Your task to perform on an android device: turn on showing notifications on the lock screen Image 0: 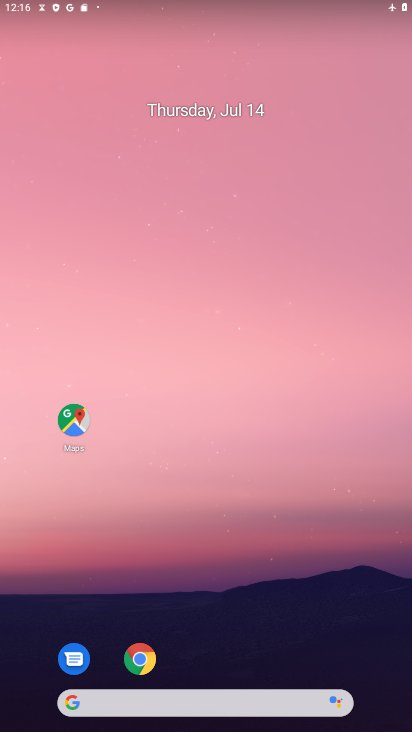
Step 0: drag from (46, 643) to (156, 338)
Your task to perform on an android device: turn on showing notifications on the lock screen Image 1: 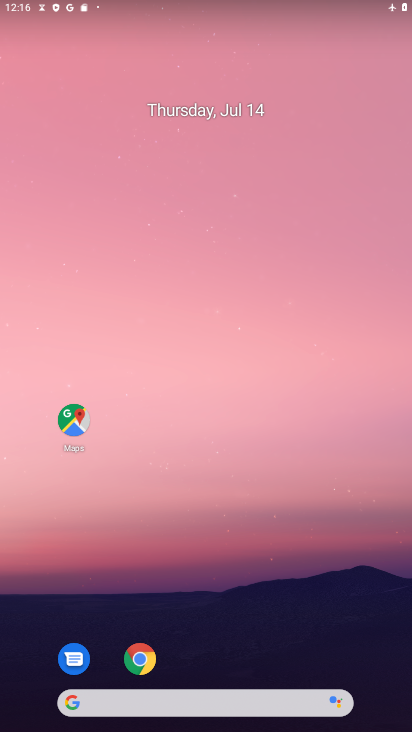
Step 1: drag from (32, 673) to (215, 140)
Your task to perform on an android device: turn on showing notifications on the lock screen Image 2: 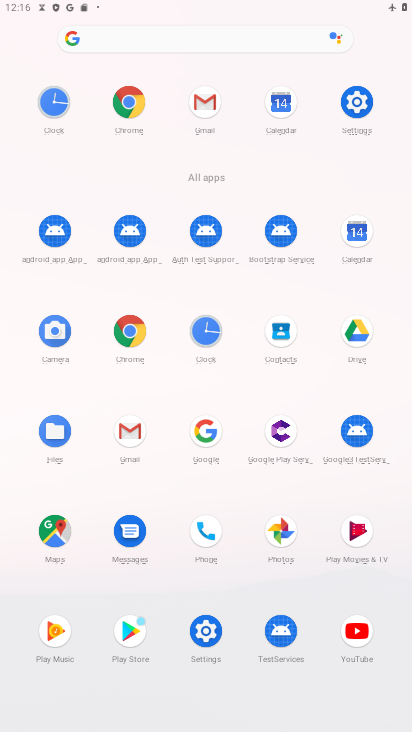
Step 2: click (194, 623)
Your task to perform on an android device: turn on showing notifications on the lock screen Image 3: 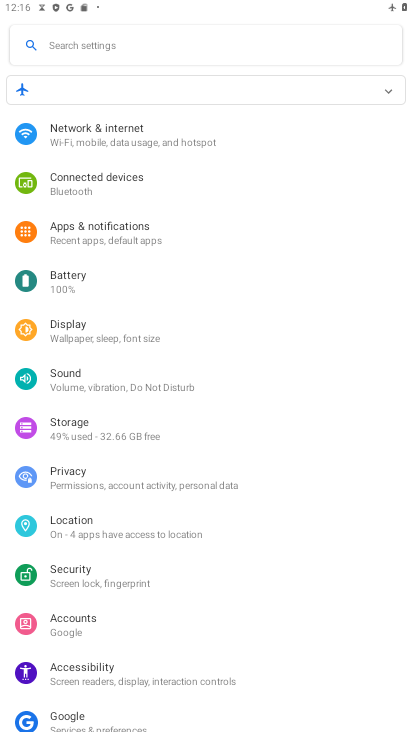
Step 3: click (124, 234)
Your task to perform on an android device: turn on showing notifications on the lock screen Image 4: 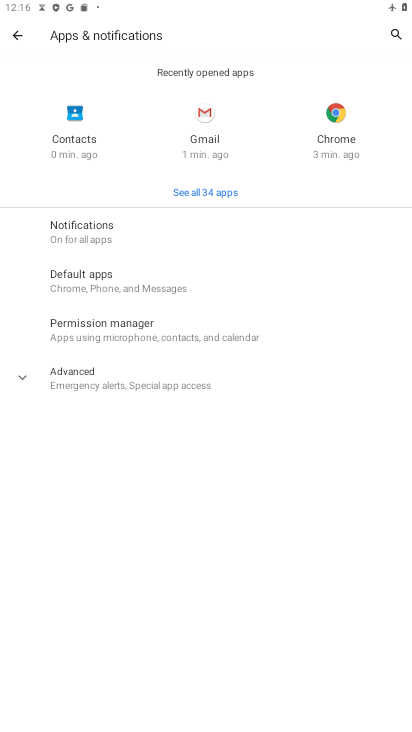
Step 4: click (110, 229)
Your task to perform on an android device: turn on showing notifications on the lock screen Image 5: 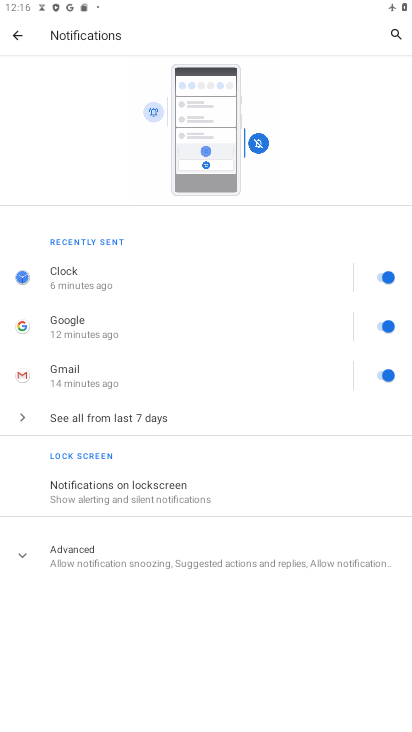
Step 5: click (104, 490)
Your task to perform on an android device: turn on showing notifications on the lock screen Image 6: 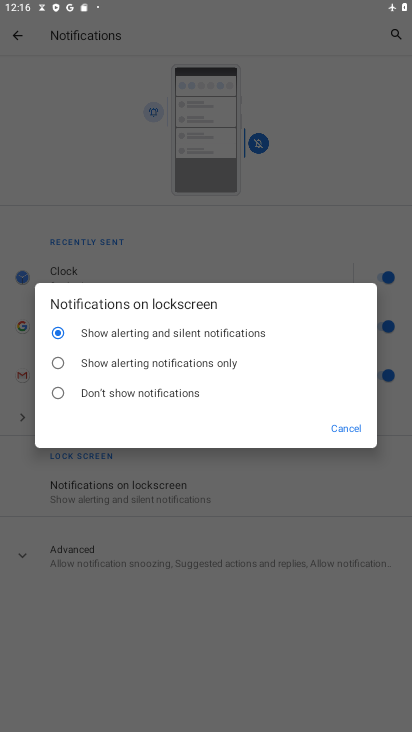
Step 6: task complete